Your task to perform on an android device: Open sound settings Image 0: 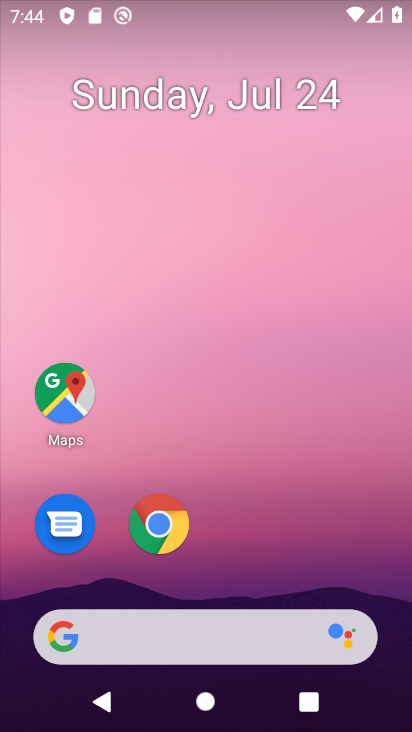
Step 0: drag from (217, 392) to (197, 108)
Your task to perform on an android device: Open sound settings Image 1: 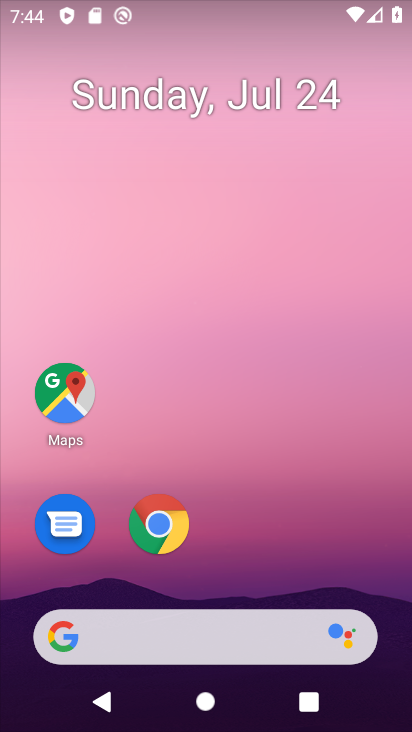
Step 1: drag from (269, 537) to (303, 25)
Your task to perform on an android device: Open sound settings Image 2: 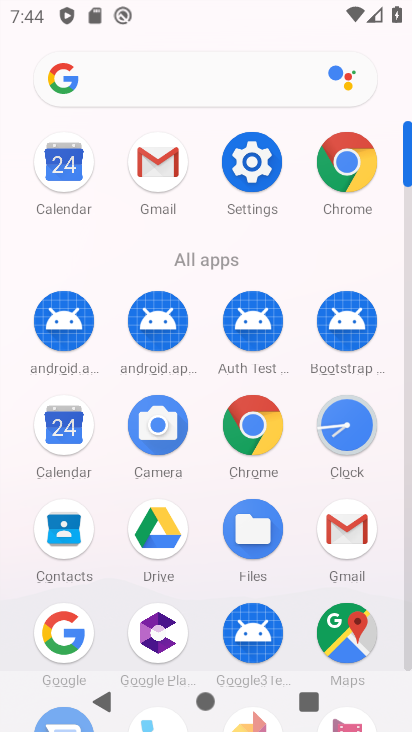
Step 2: click (258, 164)
Your task to perform on an android device: Open sound settings Image 3: 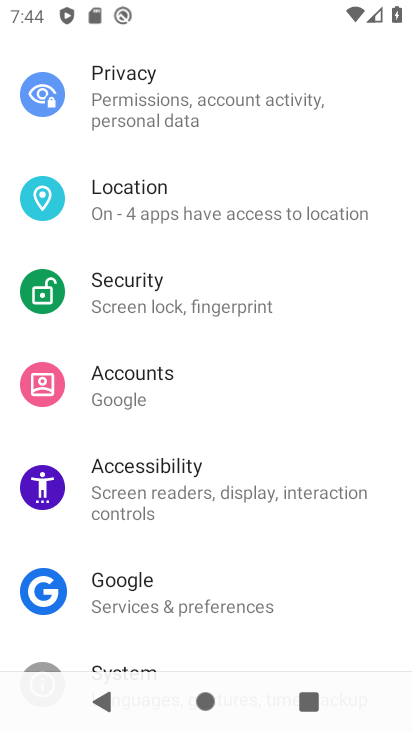
Step 3: drag from (257, 161) to (259, 655)
Your task to perform on an android device: Open sound settings Image 4: 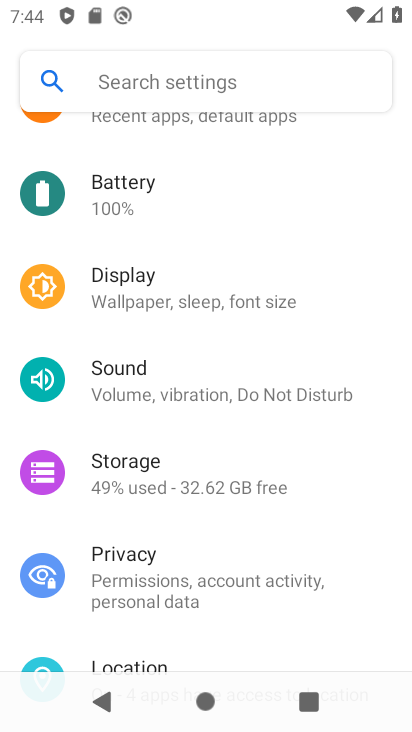
Step 4: click (222, 372)
Your task to perform on an android device: Open sound settings Image 5: 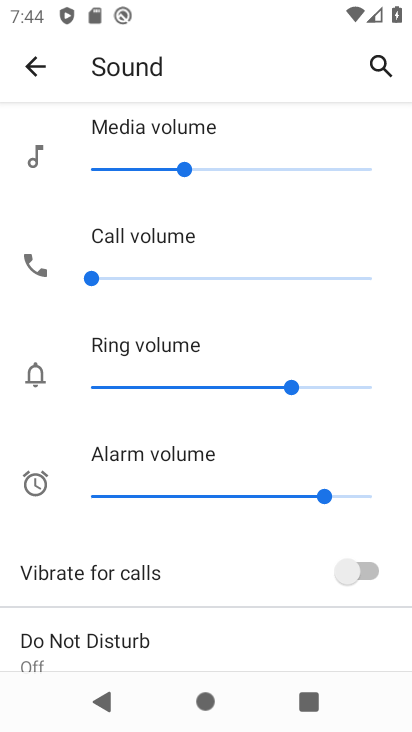
Step 5: task complete